Your task to perform on an android device: Go to battery settings Image 0: 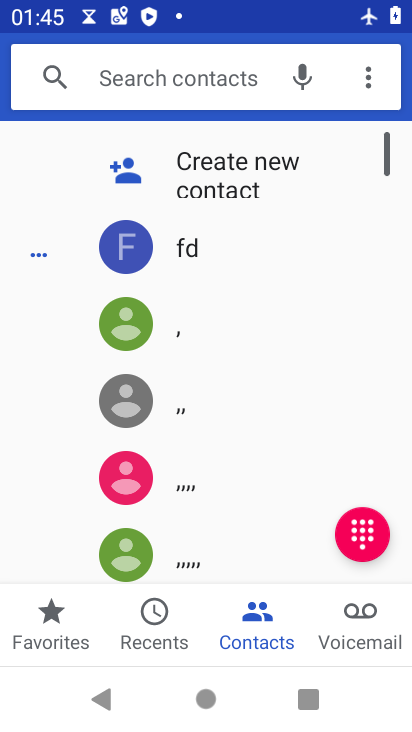
Step 0: press home button
Your task to perform on an android device: Go to battery settings Image 1: 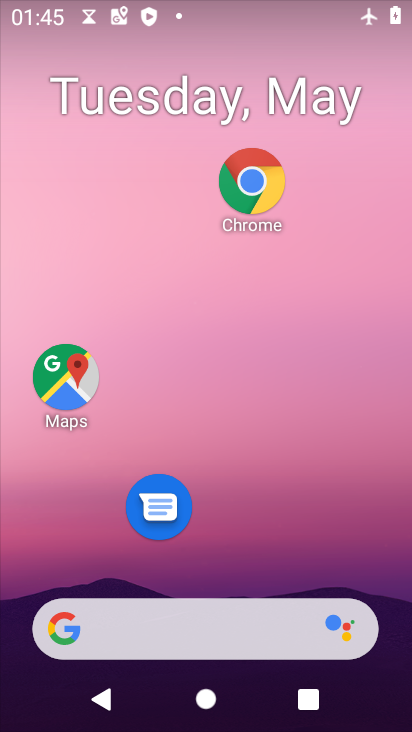
Step 1: drag from (285, 534) to (284, 284)
Your task to perform on an android device: Go to battery settings Image 2: 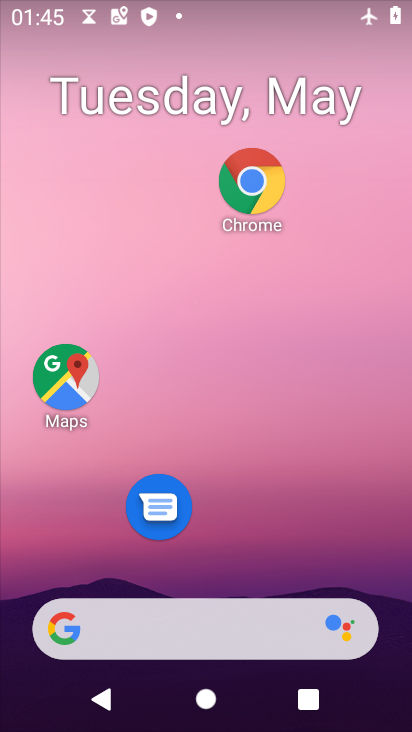
Step 2: drag from (296, 526) to (304, 282)
Your task to perform on an android device: Go to battery settings Image 3: 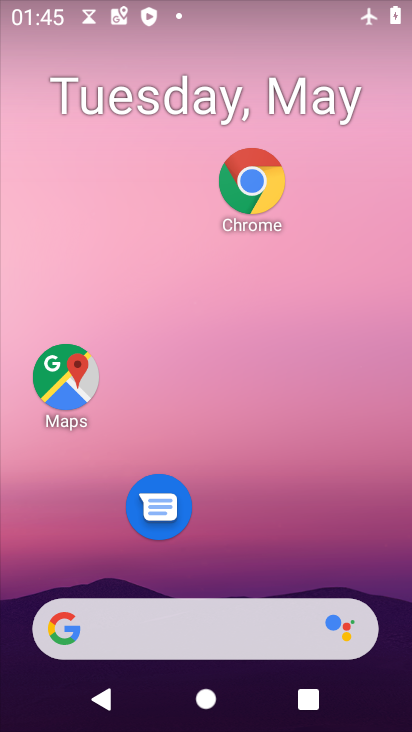
Step 3: drag from (291, 589) to (319, 258)
Your task to perform on an android device: Go to battery settings Image 4: 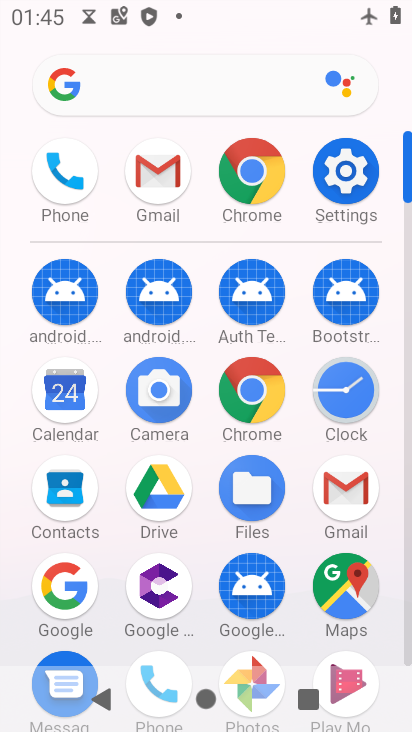
Step 4: click (337, 162)
Your task to perform on an android device: Go to battery settings Image 5: 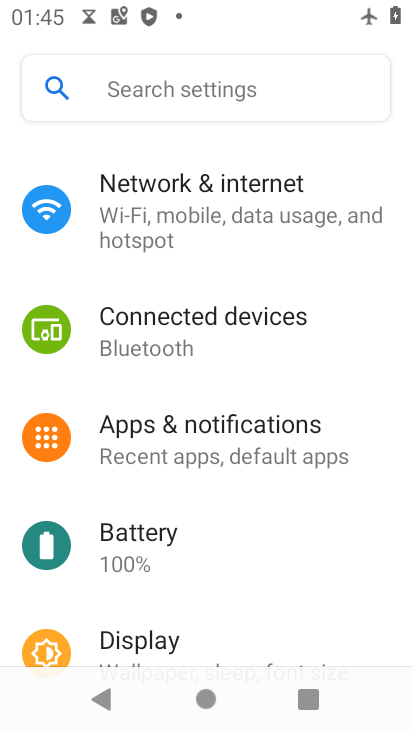
Step 5: click (200, 550)
Your task to perform on an android device: Go to battery settings Image 6: 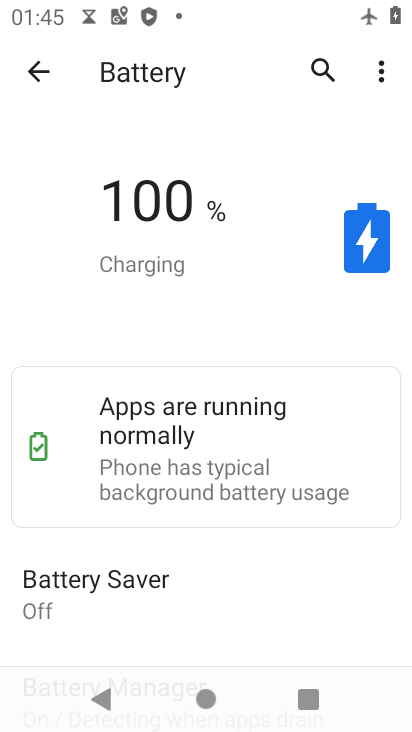
Step 6: task complete